Your task to perform on an android device: Open Google Chrome and open the bookmarks view Image 0: 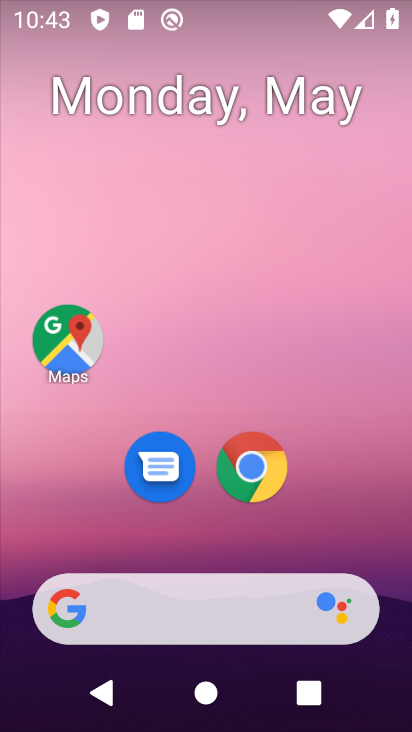
Step 0: click (255, 474)
Your task to perform on an android device: Open Google Chrome and open the bookmarks view Image 1: 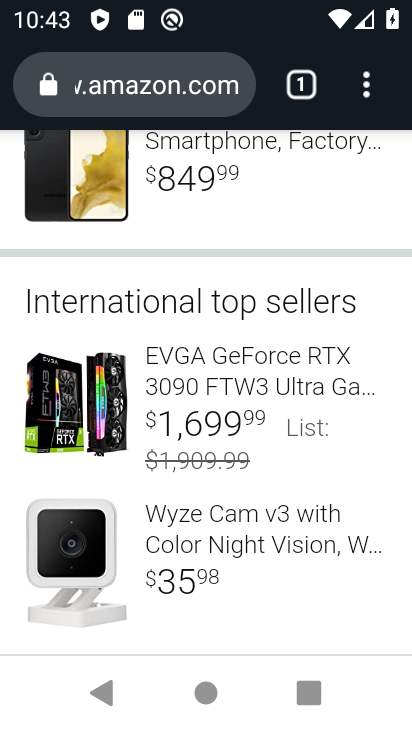
Step 1: click (357, 82)
Your task to perform on an android device: Open Google Chrome and open the bookmarks view Image 2: 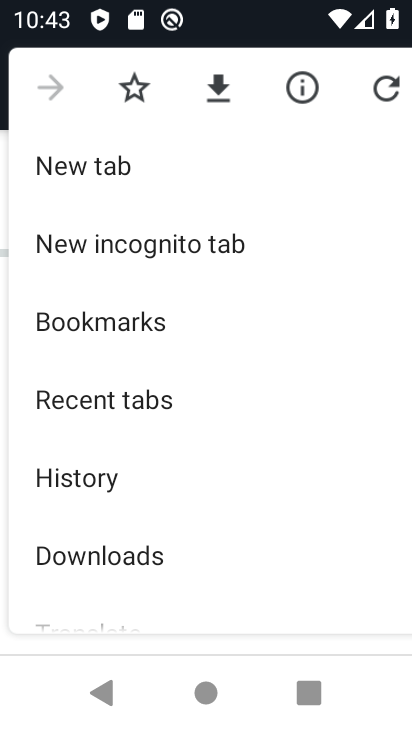
Step 2: click (104, 326)
Your task to perform on an android device: Open Google Chrome and open the bookmarks view Image 3: 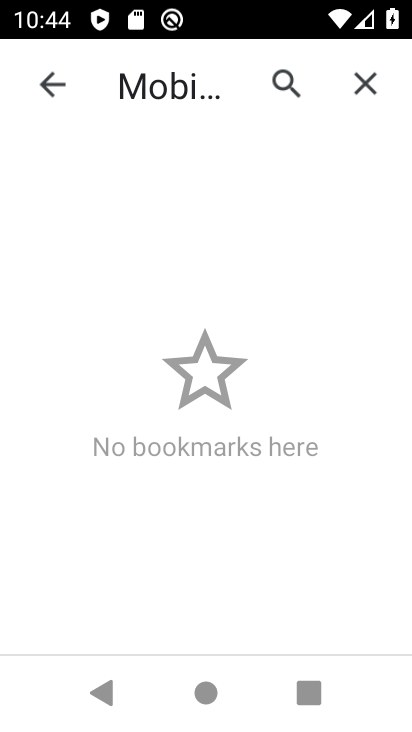
Step 3: task complete